Your task to perform on an android device: add a contact Image 0: 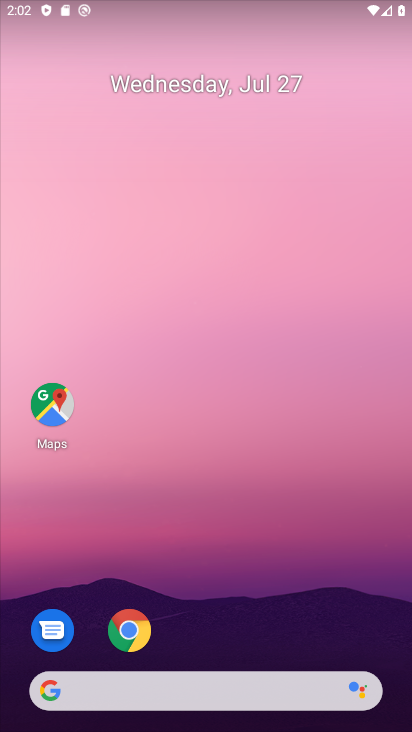
Step 0: drag from (299, 630) to (159, 108)
Your task to perform on an android device: add a contact Image 1: 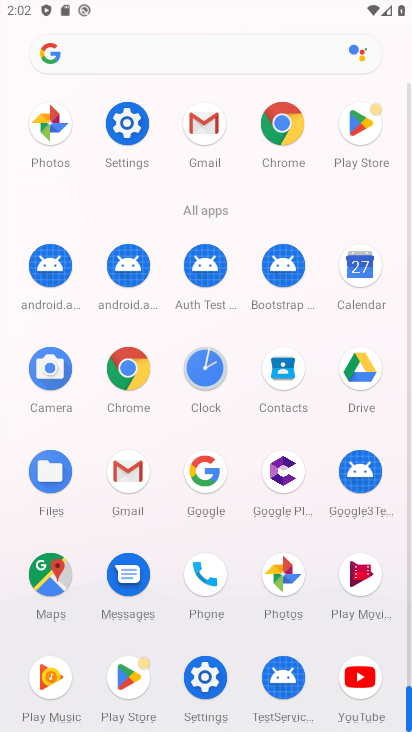
Step 1: click (271, 365)
Your task to perform on an android device: add a contact Image 2: 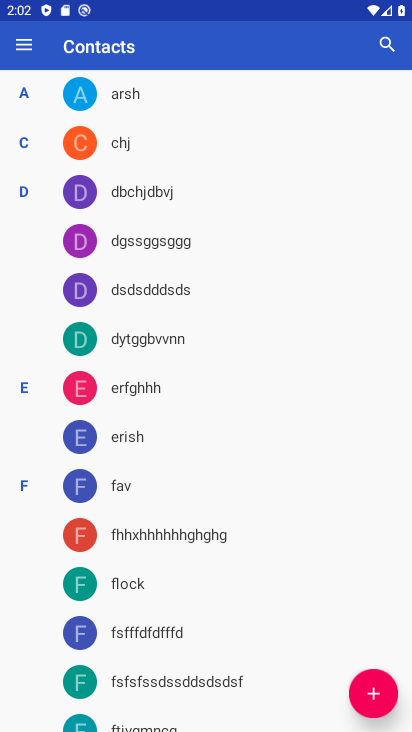
Step 2: click (373, 696)
Your task to perform on an android device: add a contact Image 3: 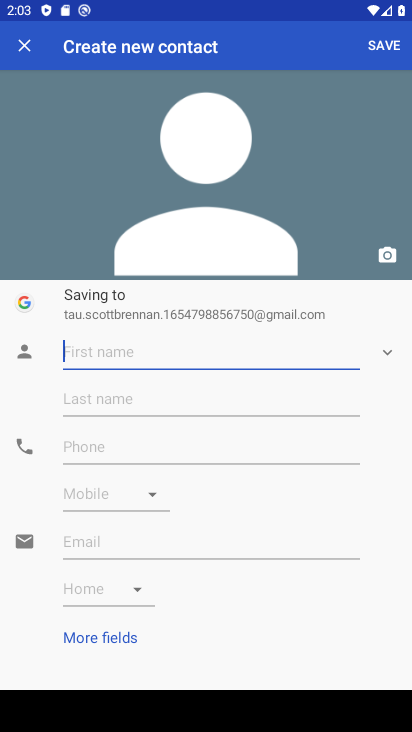
Step 3: type "ppp"
Your task to perform on an android device: add a contact Image 4: 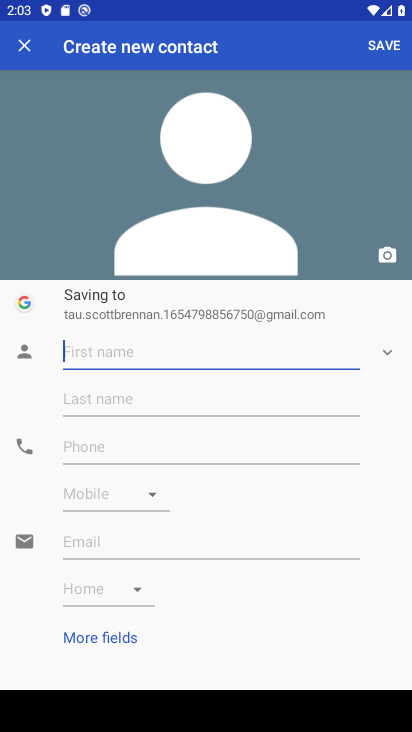
Step 4: click (86, 443)
Your task to perform on an android device: add a contact Image 5: 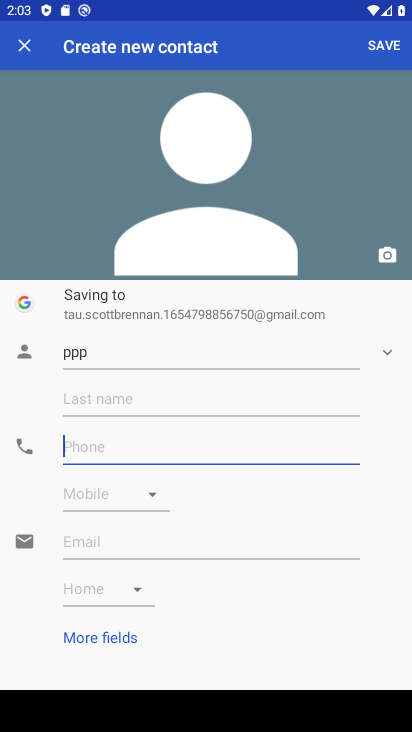
Step 5: type "9998880000"
Your task to perform on an android device: add a contact Image 6: 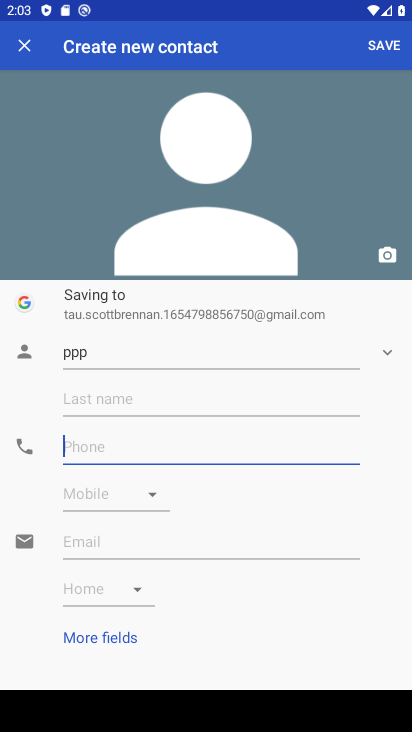
Step 6: click (395, 40)
Your task to perform on an android device: add a contact Image 7: 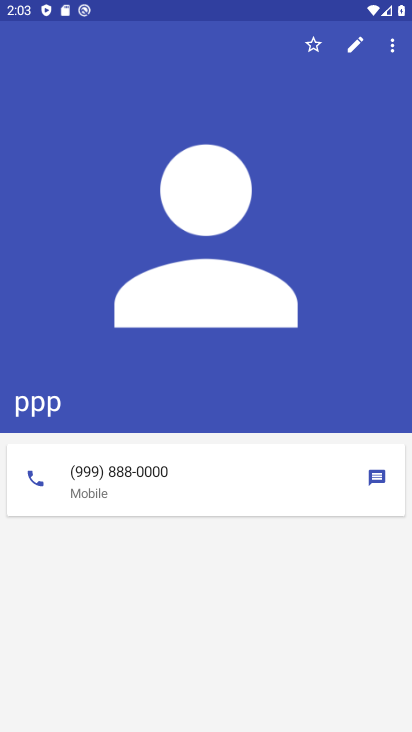
Step 7: task complete